Your task to perform on an android device: manage bookmarks in the chrome app Image 0: 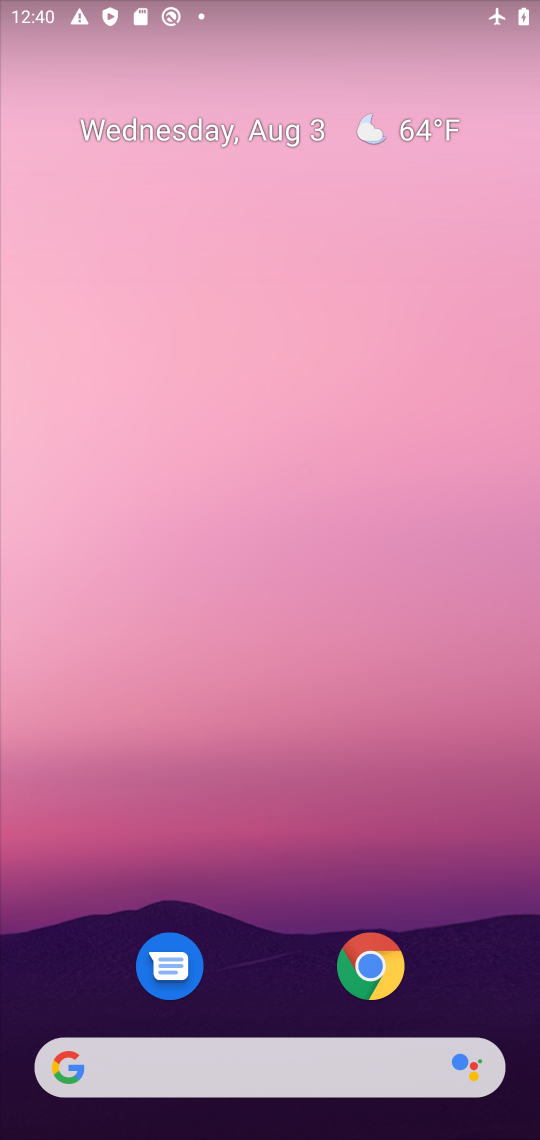
Step 0: click (355, 975)
Your task to perform on an android device: manage bookmarks in the chrome app Image 1: 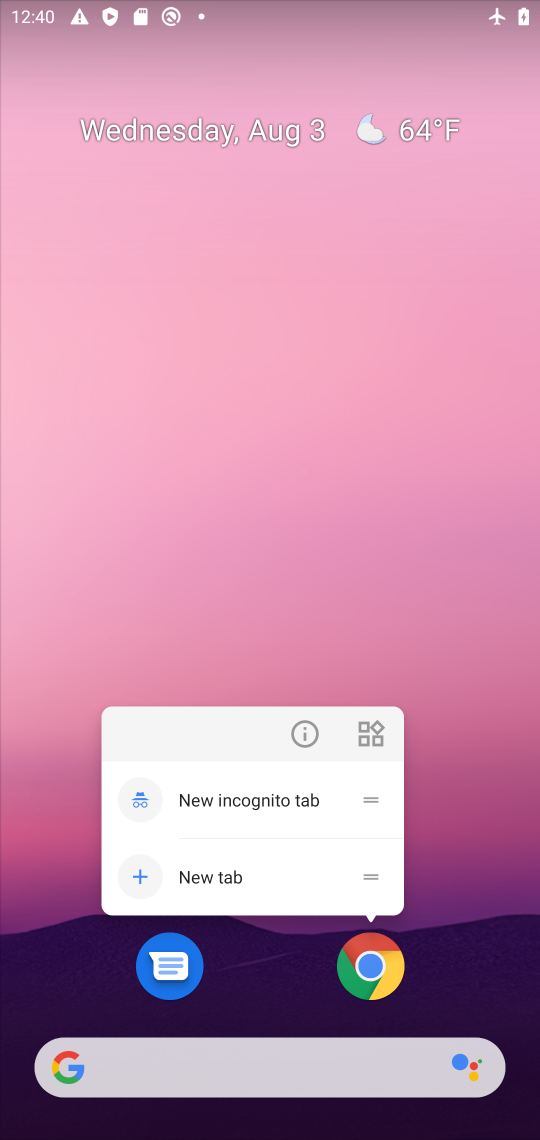
Step 1: click (357, 979)
Your task to perform on an android device: manage bookmarks in the chrome app Image 2: 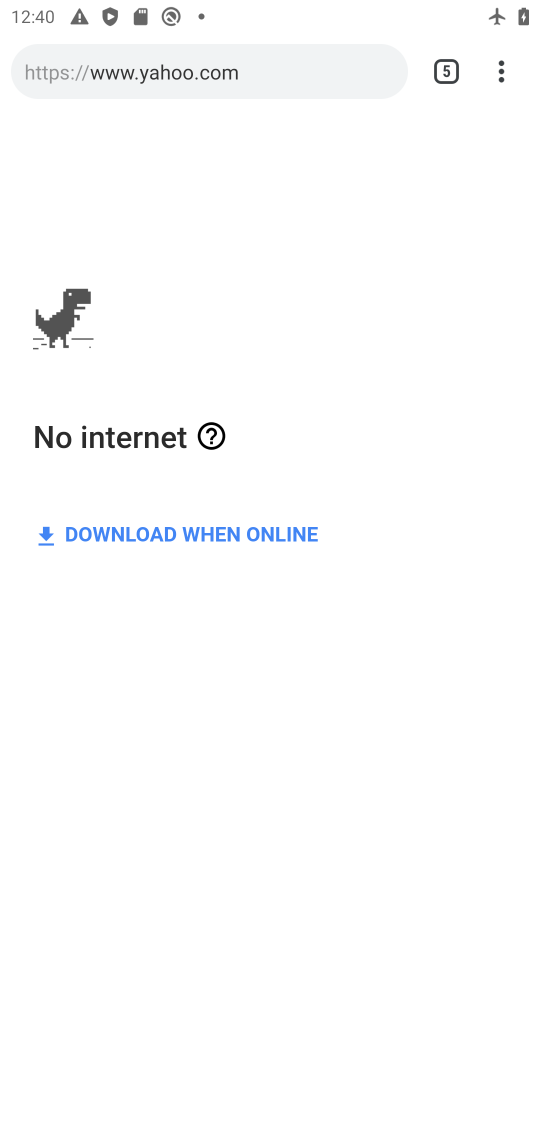
Step 2: click (508, 78)
Your task to perform on an android device: manage bookmarks in the chrome app Image 3: 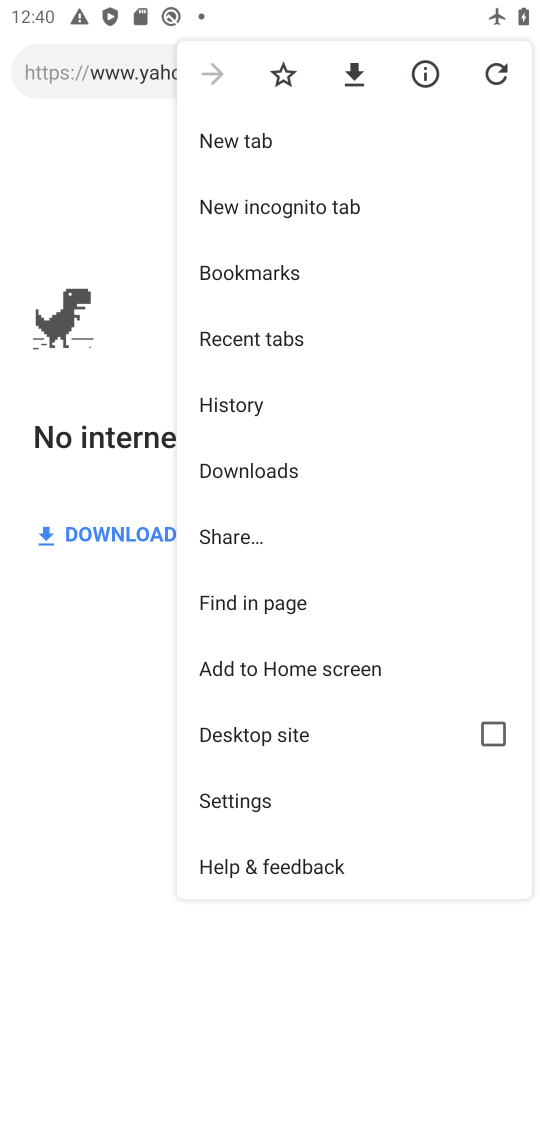
Step 3: click (333, 280)
Your task to perform on an android device: manage bookmarks in the chrome app Image 4: 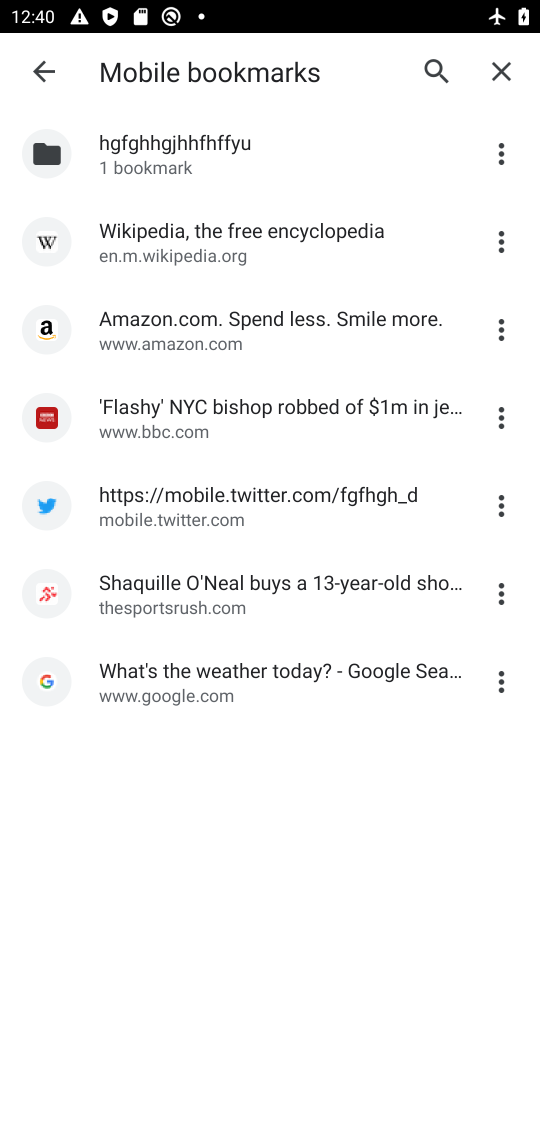
Step 4: click (499, 598)
Your task to perform on an android device: manage bookmarks in the chrome app Image 5: 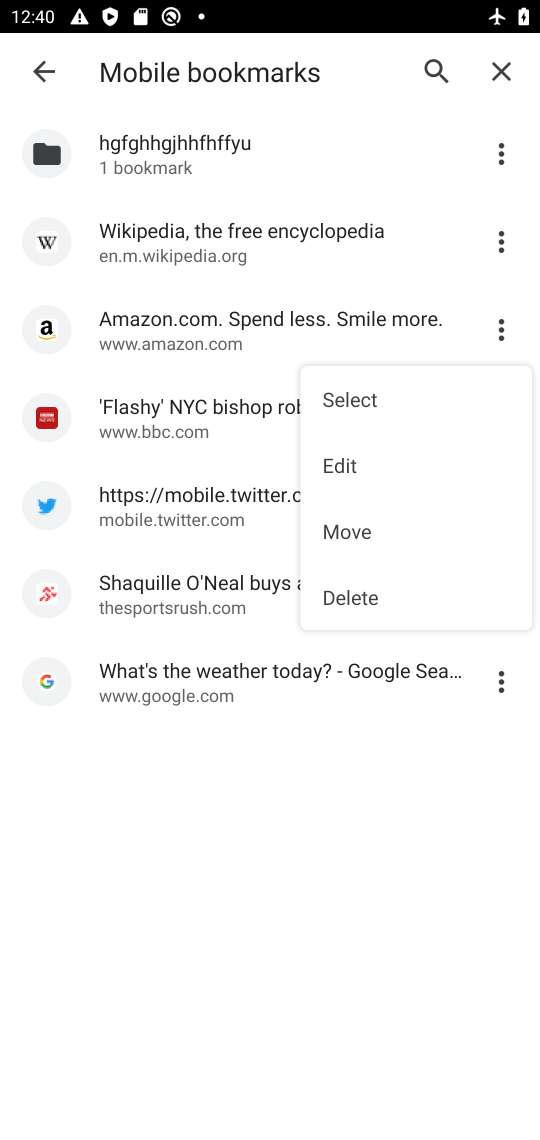
Step 5: click (415, 590)
Your task to perform on an android device: manage bookmarks in the chrome app Image 6: 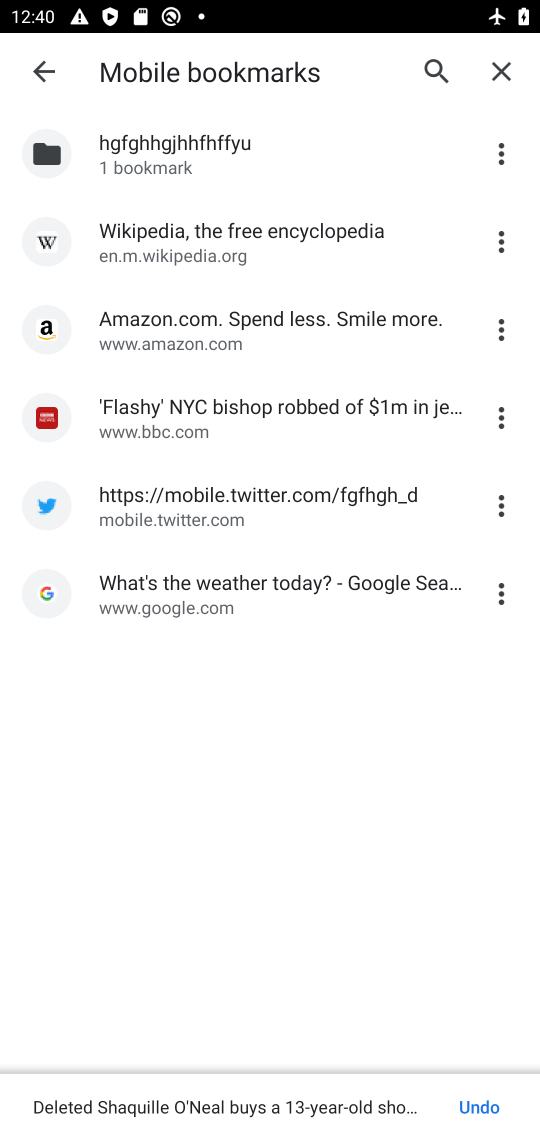
Step 6: task complete